Your task to perform on an android device: Go to sound settings Image 0: 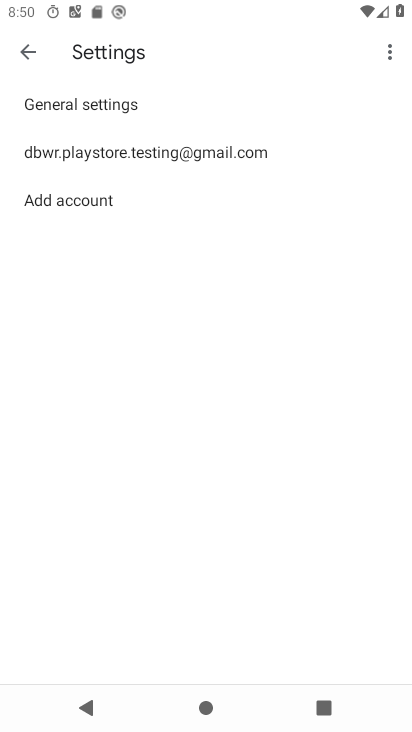
Step 0: press home button
Your task to perform on an android device: Go to sound settings Image 1: 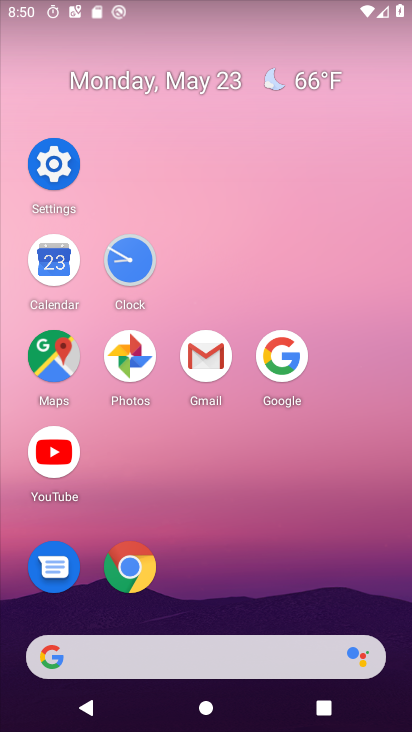
Step 1: click (43, 156)
Your task to perform on an android device: Go to sound settings Image 2: 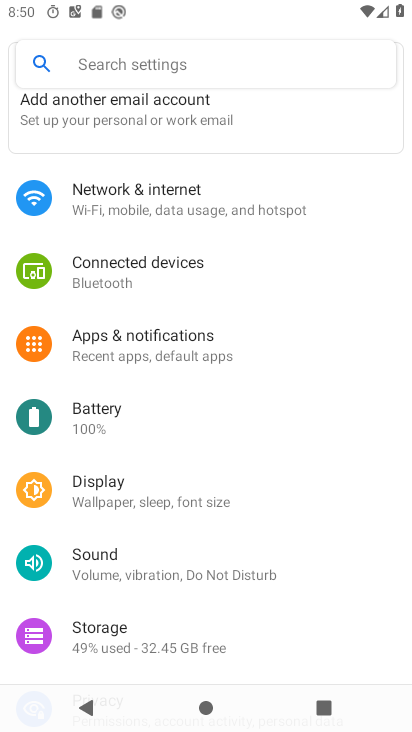
Step 2: click (122, 566)
Your task to perform on an android device: Go to sound settings Image 3: 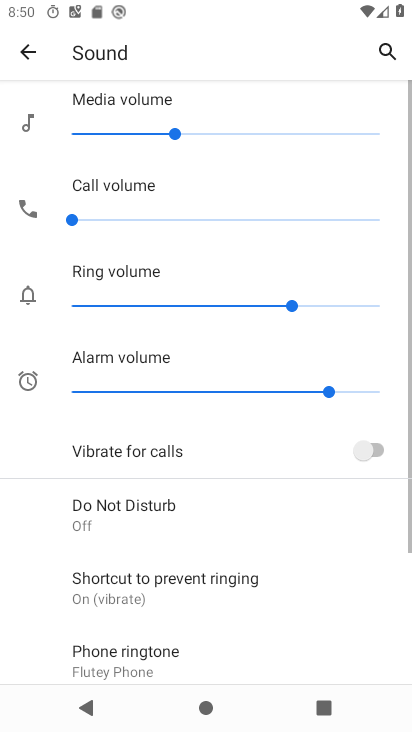
Step 3: task complete